Your task to perform on an android device: install app "Microsoft Authenticator" Image 0: 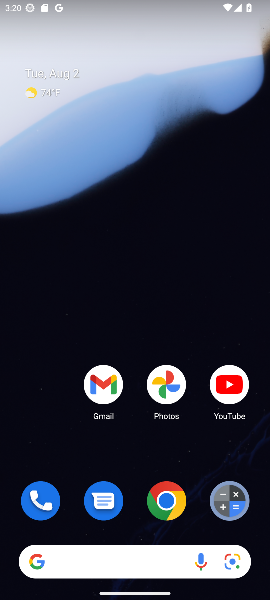
Step 0: drag from (152, 452) to (128, 76)
Your task to perform on an android device: install app "Microsoft Authenticator" Image 1: 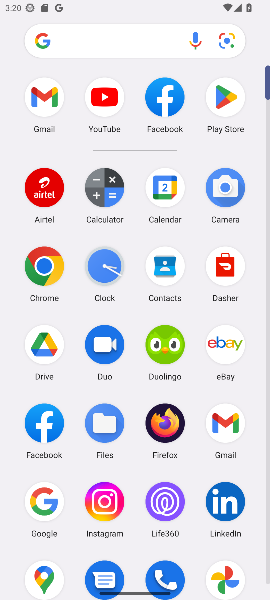
Step 1: click (233, 106)
Your task to perform on an android device: install app "Microsoft Authenticator" Image 2: 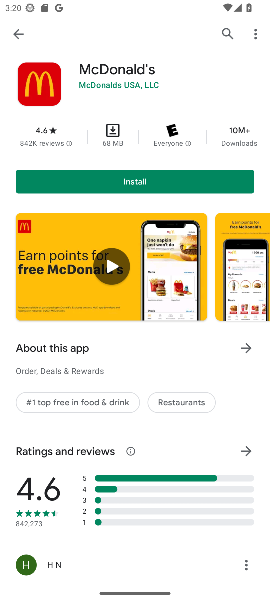
Step 2: click (225, 25)
Your task to perform on an android device: install app "Microsoft Authenticator" Image 3: 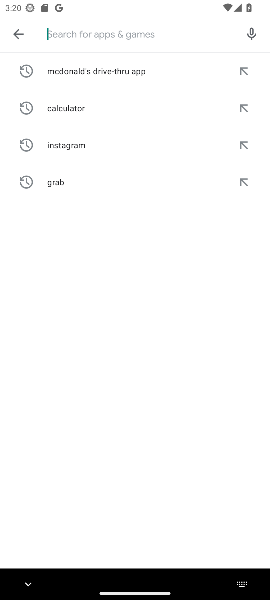
Step 3: type "Microsoft Authenticator"
Your task to perform on an android device: install app "Microsoft Authenticator" Image 4: 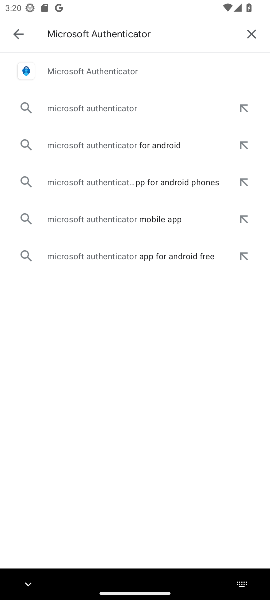
Step 4: click (82, 77)
Your task to perform on an android device: install app "Microsoft Authenticator" Image 5: 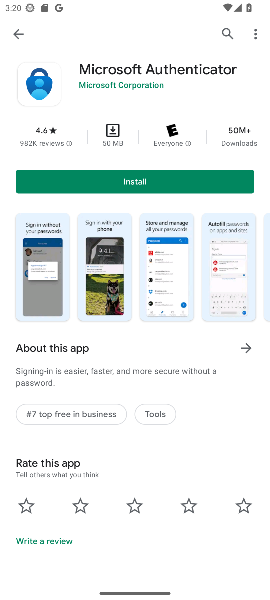
Step 5: click (110, 172)
Your task to perform on an android device: install app "Microsoft Authenticator" Image 6: 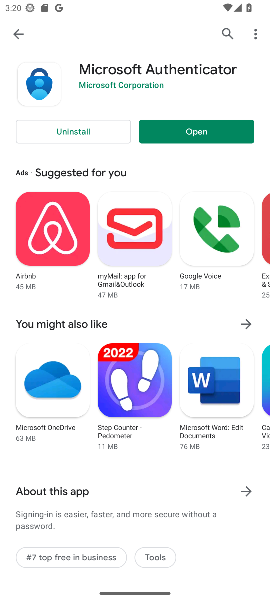
Step 6: task complete